Your task to perform on an android device: toggle pop-ups in chrome Image 0: 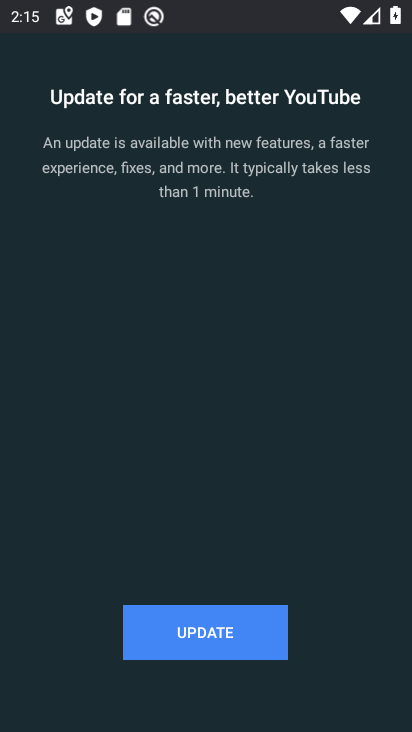
Step 0: press back button
Your task to perform on an android device: toggle pop-ups in chrome Image 1: 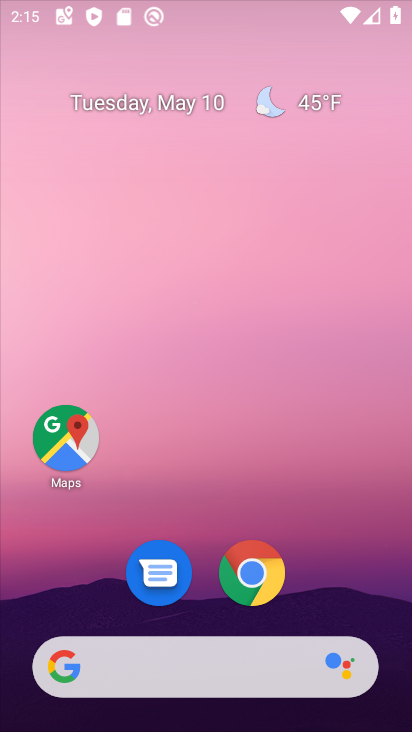
Step 1: press home button
Your task to perform on an android device: toggle pop-ups in chrome Image 2: 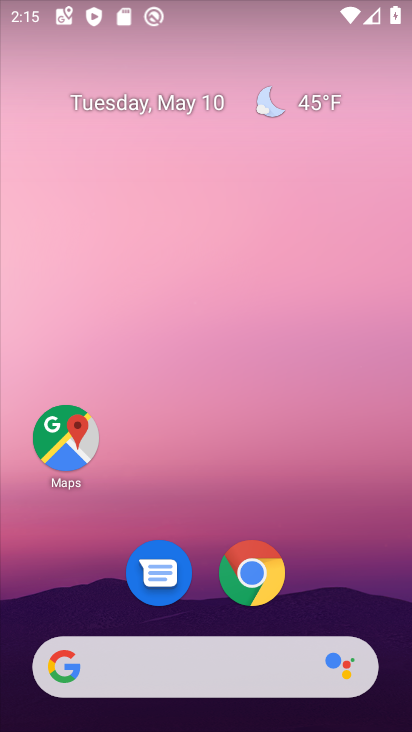
Step 2: click (298, 572)
Your task to perform on an android device: toggle pop-ups in chrome Image 3: 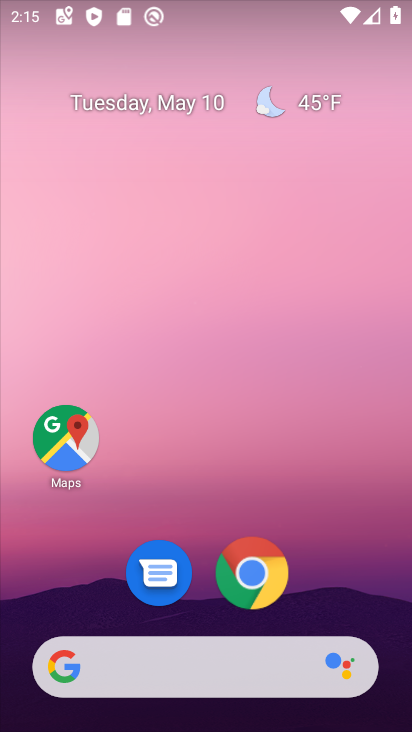
Step 3: click (264, 578)
Your task to perform on an android device: toggle pop-ups in chrome Image 4: 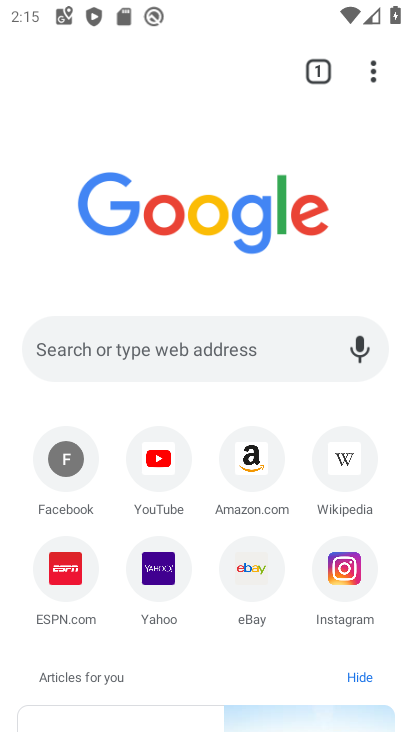
Step 4: click (371, 79)
Your task to perform on an android device: toggle pop-ups in chrome Image 5: 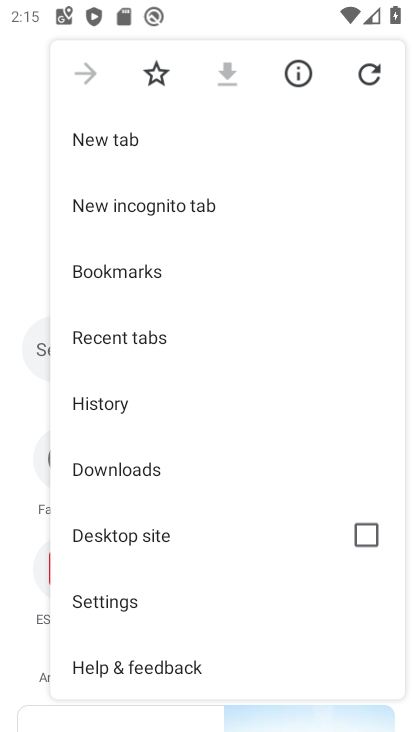
Step 5: click (158, 602)
Your task to perform on an android device: toggle pop-ups in chrome Image 6: 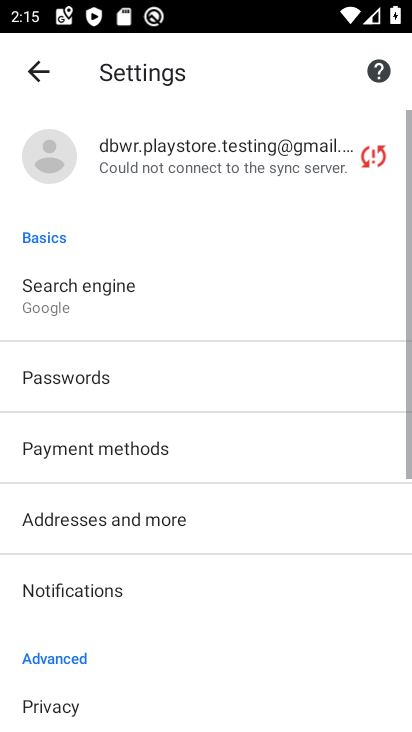
Step 6: drag from (168, 597) to (215, 309)
Your task to perform on an android device: toggle pop-ups in chrome Image 7: 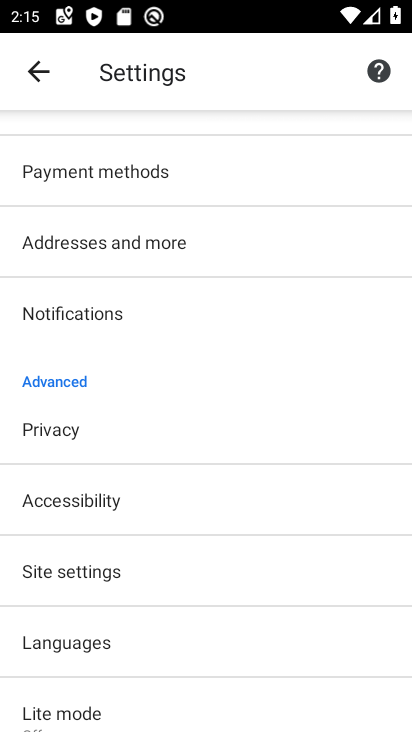
Step 7: click (121, 584)
Your task to perform on an android device: toggle pop-ups in chrome Image 8: 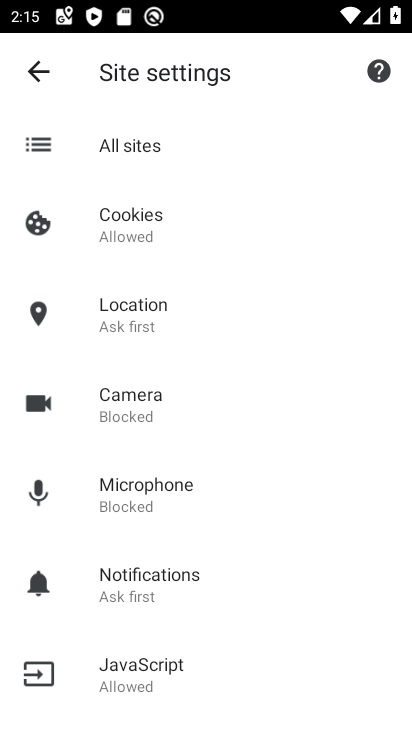
Step 8: drag from (122, 583) to (184, 443)
Your task to perform on an android device: toggle pop-ups in chrome Image 9: 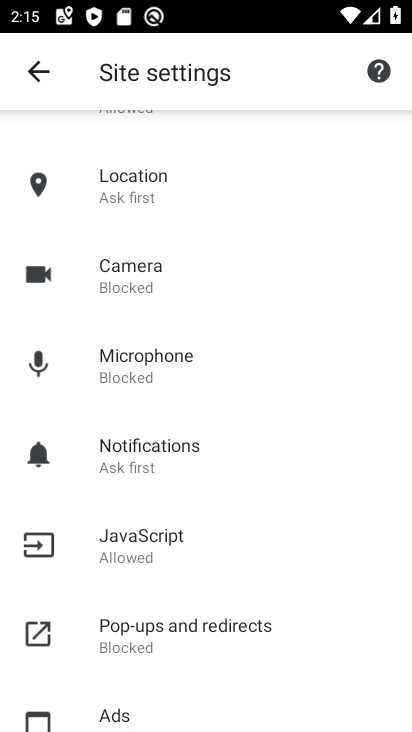
Step 9: click (163, 631)
Your task to perform on an android device: toggle pop-ups in chrome Image 10: 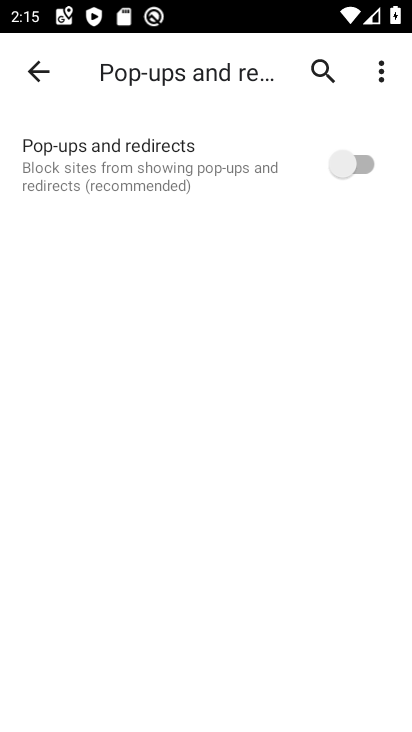
Step 10: click (365, 166)
Your task to perform on an android device: toggle pop-ups in chrome Image 11: 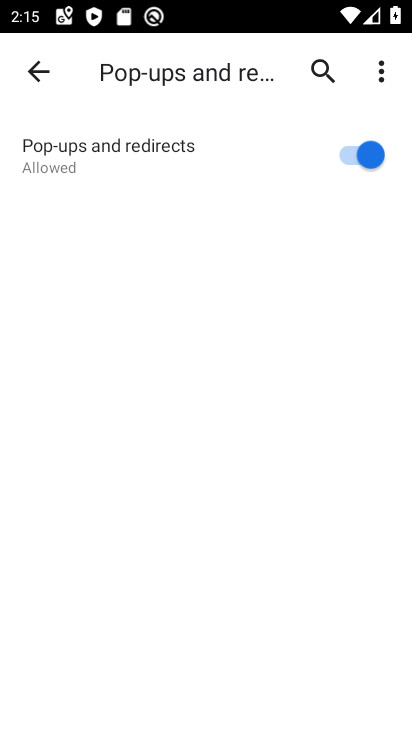
Step 11: task complete